Your task to perform on an android device: open app "Grab" (install if not already installed) and go to login screen Image 0: 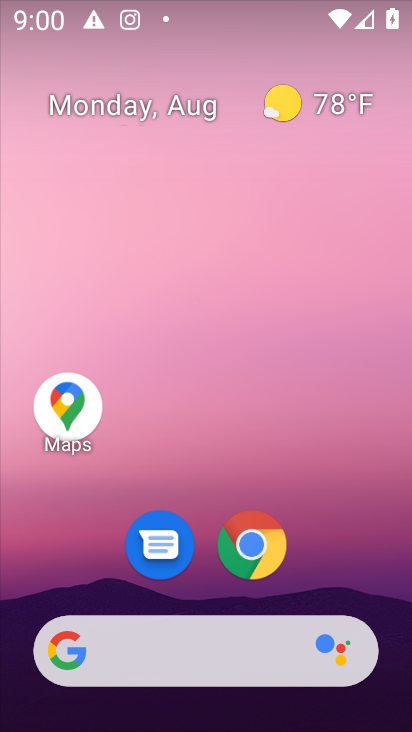
Step 0: drag from (357, 492) to (372, 104)
Your task to perform on an android device: open app "Grab" (install if not already installed) and go to login screen Image 1: 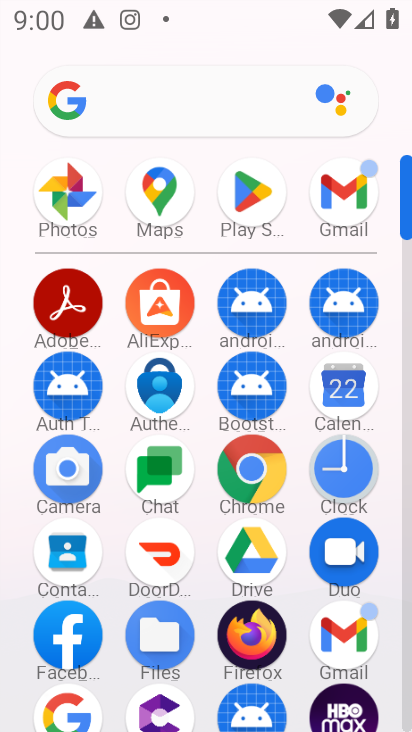
Step 1: click (253, 184)
Your task to perform on an android device: open app "Grab" (install if not already installed) and go to login screen Image 2: 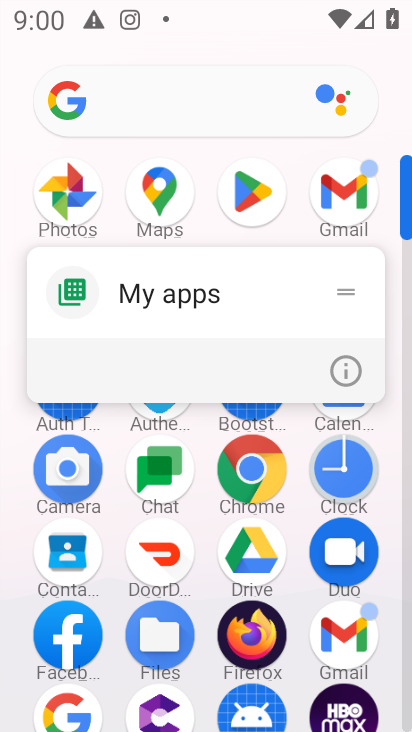
Step 2: click (254, 194)
Your task to perform on an android device: open app "Grab" (install if not already installed) and go to login screen Image 3: 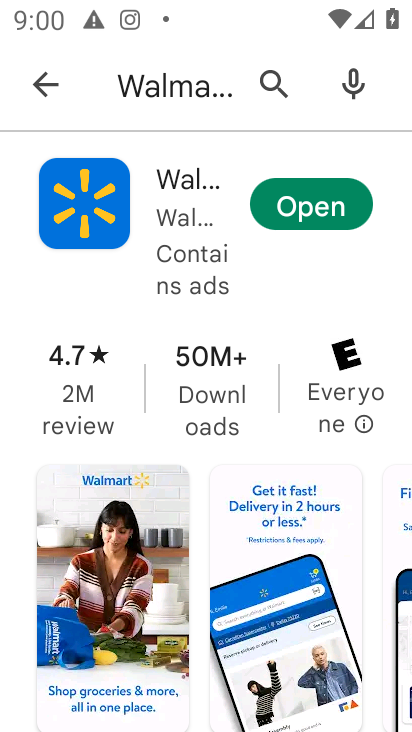
Step 3: press back button
Your task to perform on an android device: open app "Grab" (install if not already installed) and go to login screen Image 4: 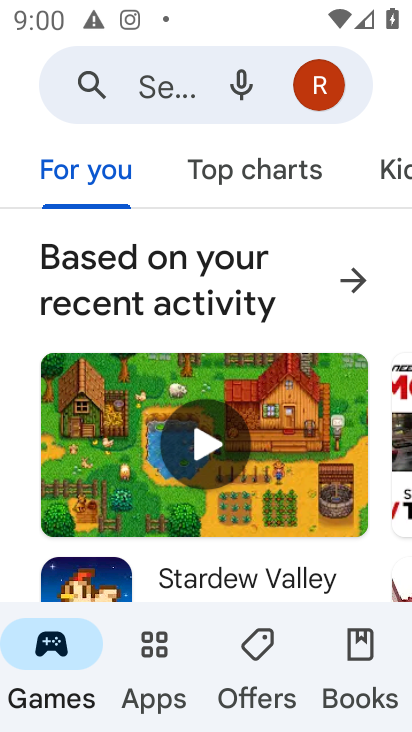
Step 4: click (164, 84)
Your task to perform on an android device: open app "Grab" (install if not already installed) and go to login screen Image 5: 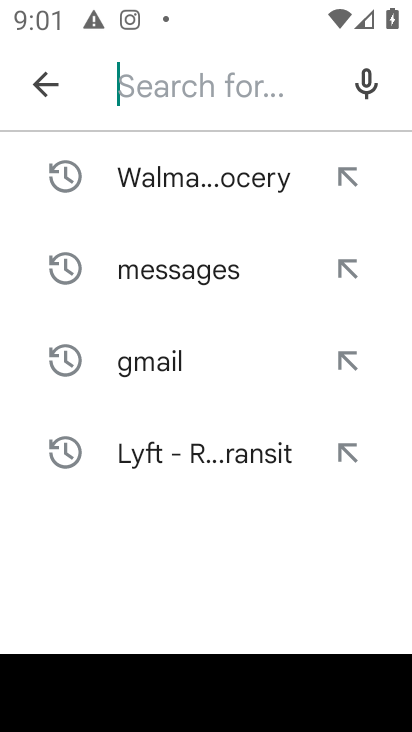
Step 5: type "grab"
Your task to perform on an android device: open app "Grab" (install if not already installed) and go to login screen Image 6: 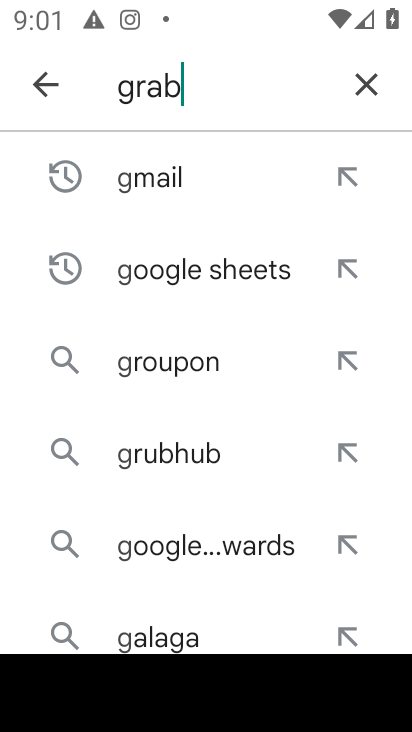
Step 6: press enter
Your task to perform on an android device: open app "Grab" (install if not already installed) and go to login screen Image 7: 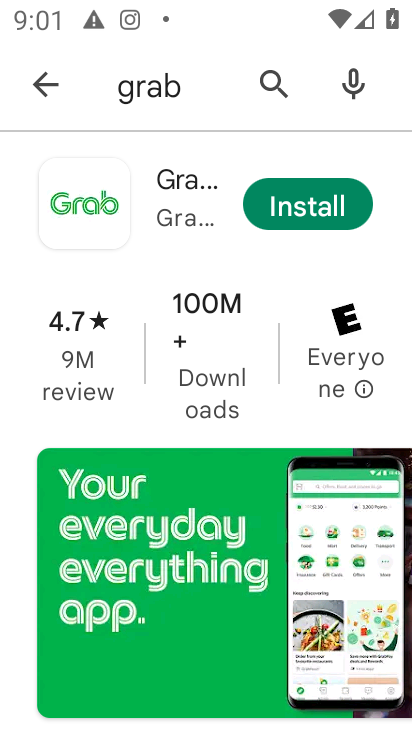
Step 7: click (306, 209)
Your task to perform on an android device: open app "Grab" (install if not already installed) and go to login screen Image 8: 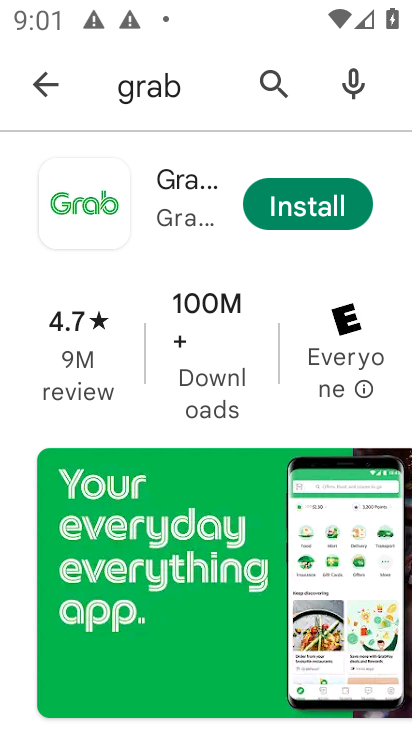
Step 8: click (293, 201)
Your task to perform on an android device: open app "Grab" (install if not already installed) and go to login screen Image 9: 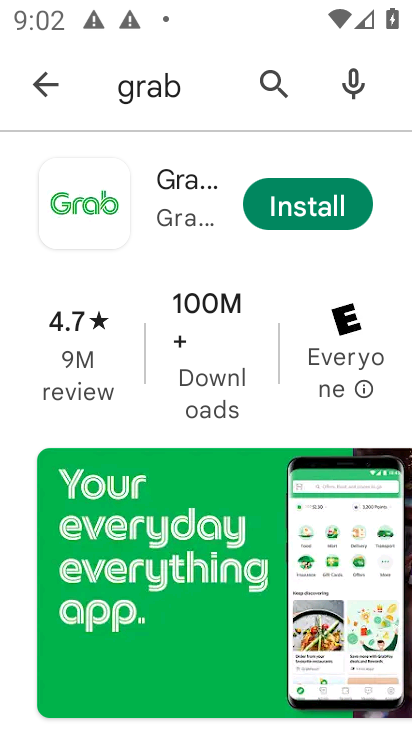
Step 9: task complete